Your task to perform on an android device: Show me popular videos on Youtube Image 0: 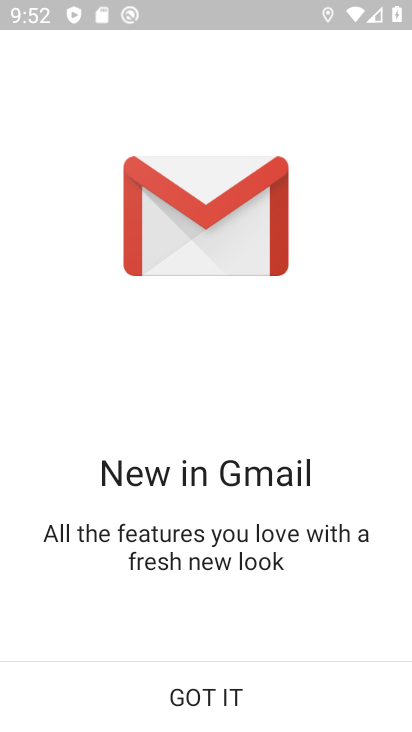
Step 0: press home button
Your task to perform on an android device: Show me popular videos on Youtube Image 1: 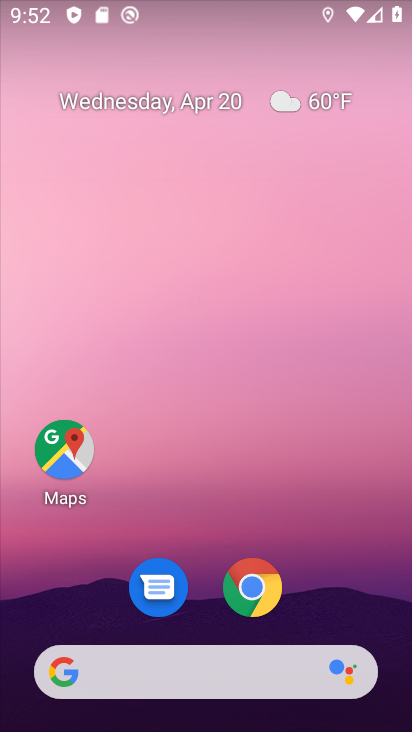
Step 1: drag from (307, 594) to (294, 112)
Your task to perform on an android device: Show me popular videos on Youtube Image 2: 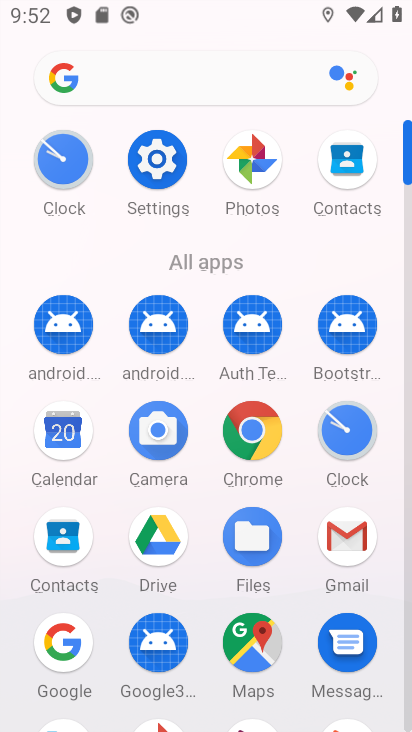
Step 2: drag from (298, 543) to (298, 156)
Your task to perform on an android device: Show me popular videos on Youtube Image 3: 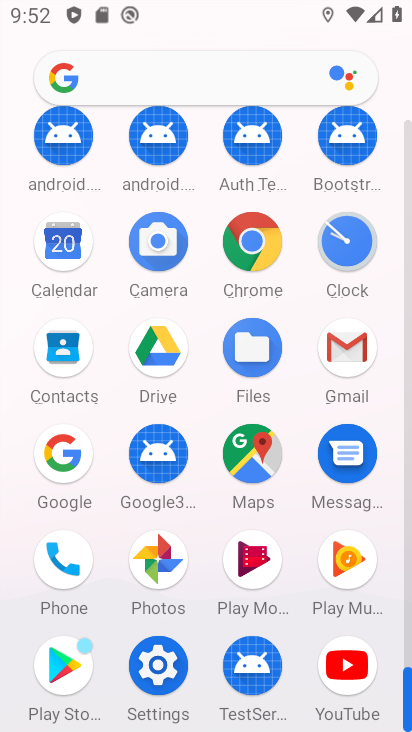
Step 3: click (344, 670)
Your task to perform on an android device: Show me popular videos on Youtube Image 4: 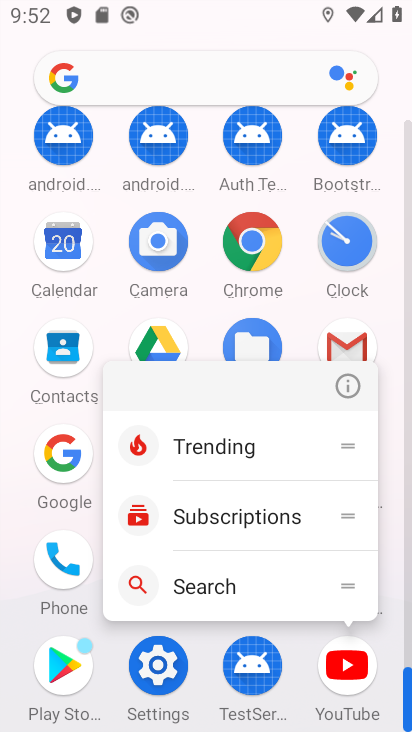
Step 4: click (138, 443)
Your task to perform on an android device: Show me popular videos on Youtube Image 5: 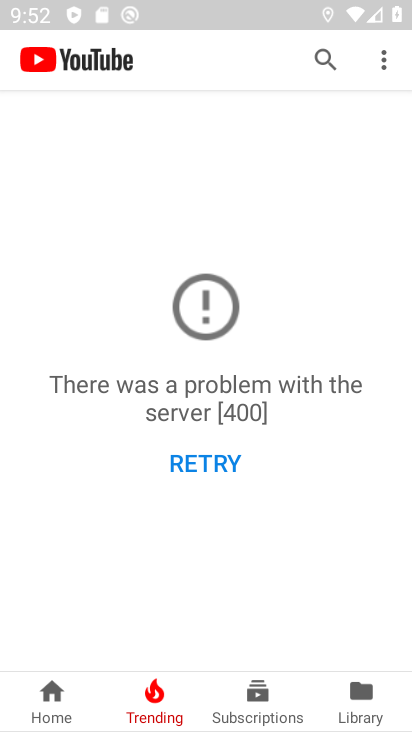
Step 5: drag from (239, 549) to (231, 239)
Your task to perform on an android device: Show me popular videos on Youtube Image 6: 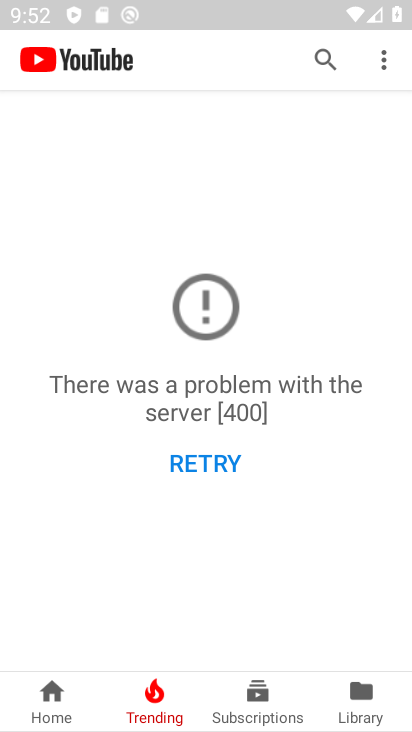
Step 6: click (206, 460)
Your task to perform on an android device: Show me popular videos on Youtube Image 7: 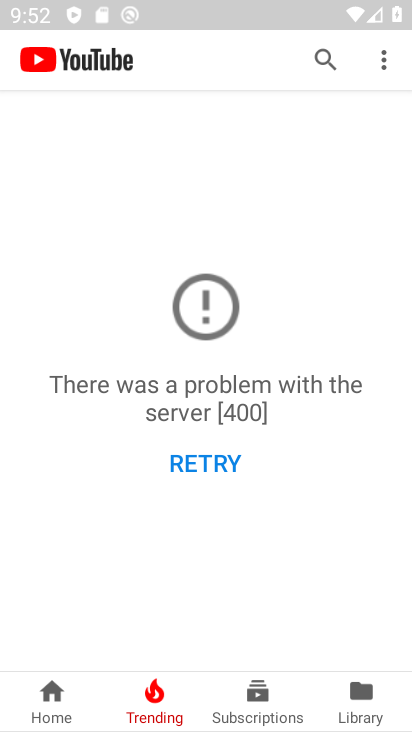
Step 7: task complete